Your task to perform on an android device: Go to Google maps Image 0: 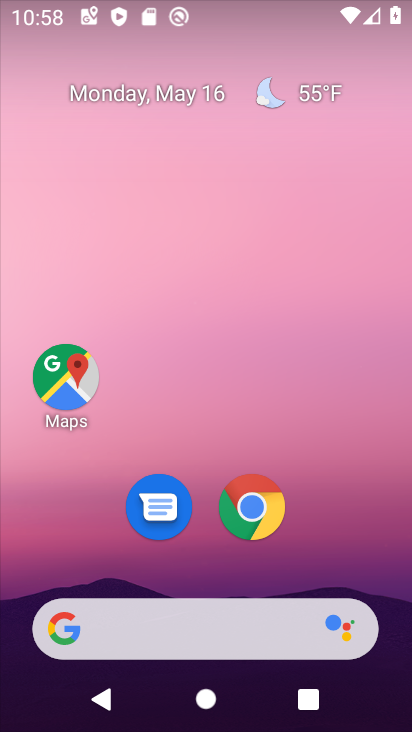
Step 0: click (69, 394)
Your task to perform on an android device: Go to Google maps Image 1: 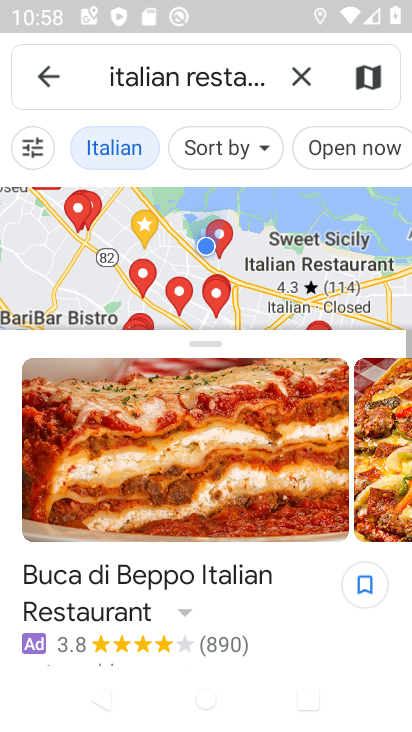
Step 1: click (304, 84)
Your task to perform on an android device: Go to Google maps Image 2: 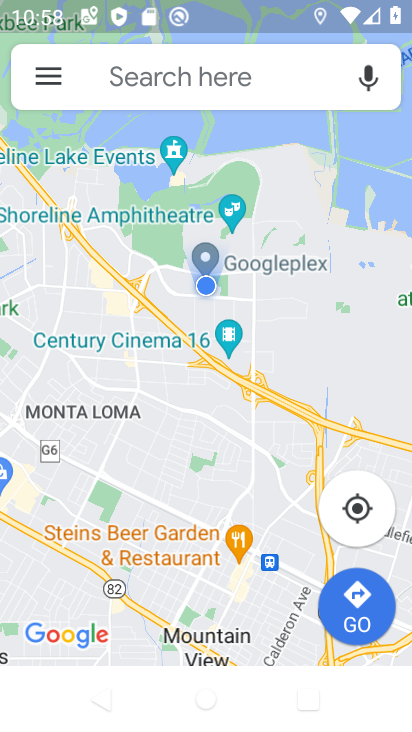
Step 2: task complete